Your task to perform on an android device: Do I have any events today? Image 0: 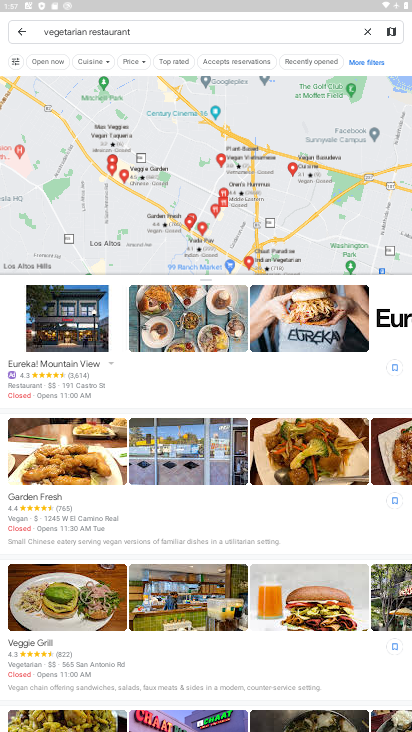
Step 0: press home button
Your task to perform on an android device: Do I have any events today? Image 1: 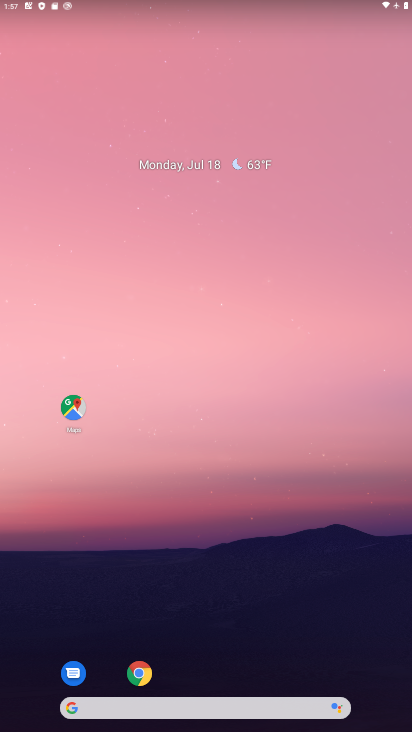
Step 1: drag from (182, 690) to (213, 364)
Your task to perform on an android device: Do I have any events today? Image 2: 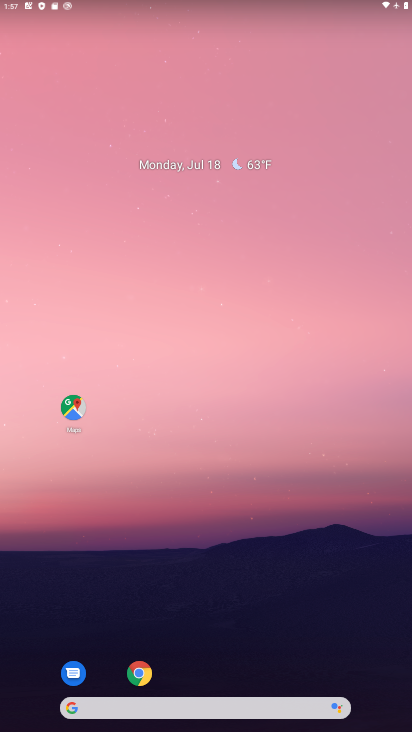
Step 2: drag from (250, 692) to (257, 416)
Your task to perform on an android device: Do I have any events today? Image 3: 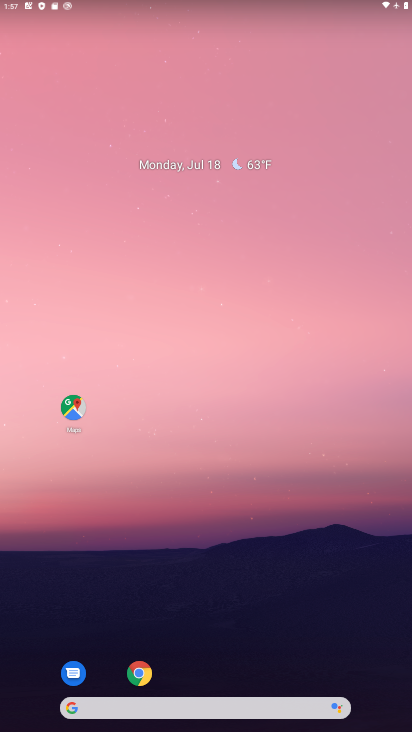
Step 3: drag from (264, 653) to (246, 171)
Your task to perform on an android device: Do I have any events today? Image 4: 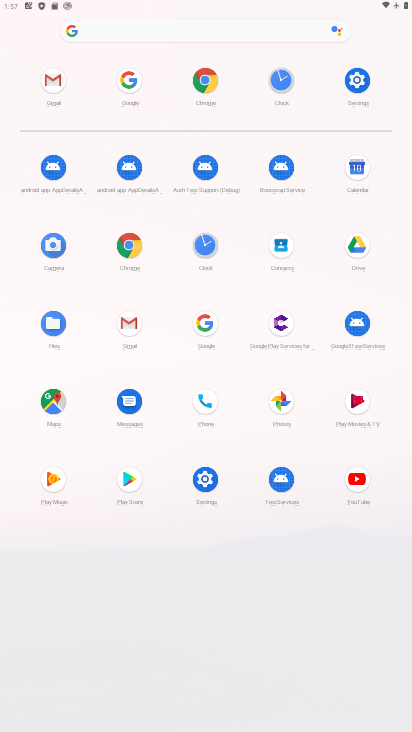
Step 4: click (355, 158)
Your task to perform on an android device: Do I have any events today? Image 5: 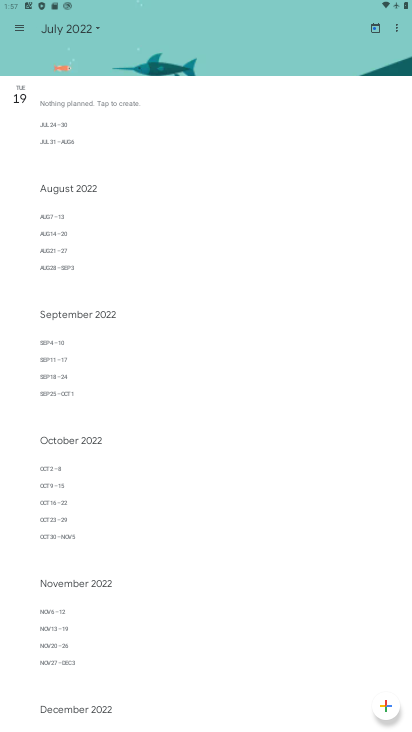
Step 5: click (11, 26)
Your task to perform on an android device: Do I have any events today? Image 6: 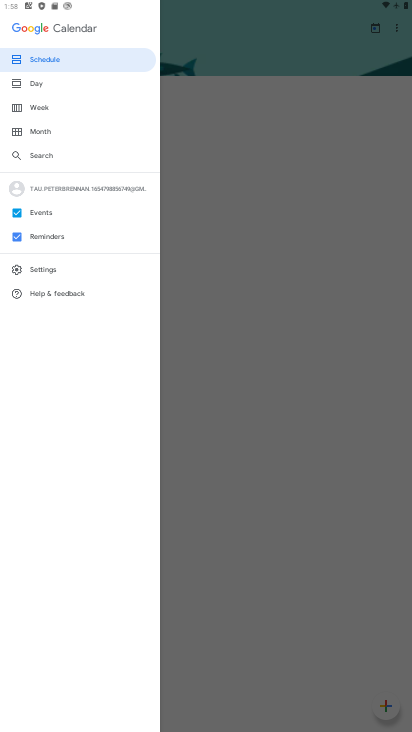
Step 6: click (54, 125)
Your task to perform on an android device: Do I have any events today? Image 7: 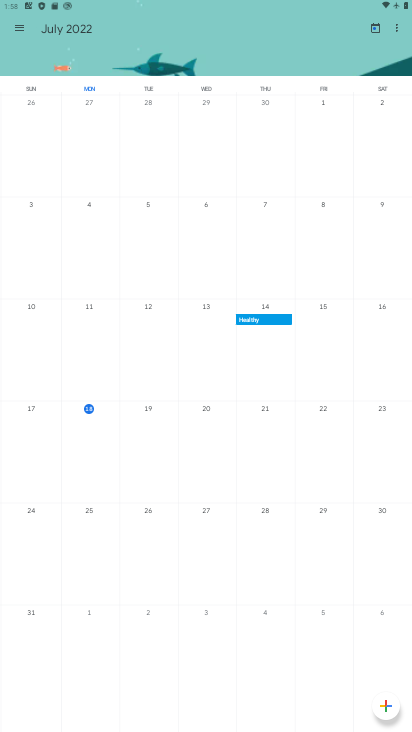
Step 7: click (75, 408)
Your task to perform on an android device: Do I have any events today? Image 8: 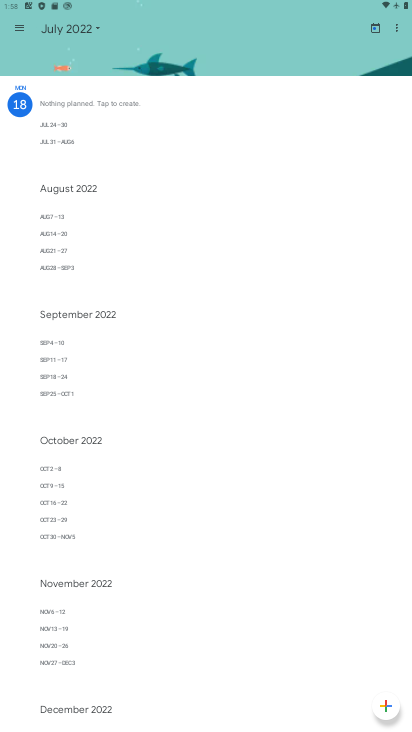
Step 8: task complete